Your task to perform on an android device: Add "panasonic triple a" to the cart on costco.com, then select checkout. Image 0: 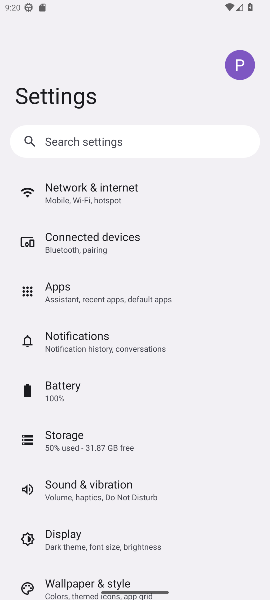
Step 0: press home button
Your task to perform on an android device: Add "panasonic triple a" to the cart on costco.com, then select checkout. Image 1: 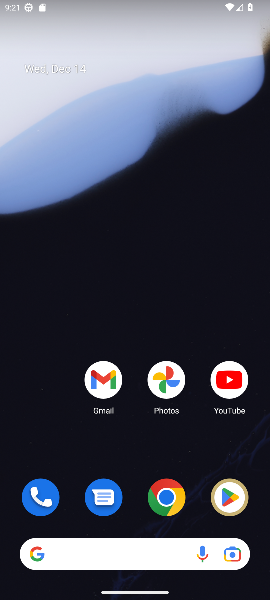
Step 1: click (169, 501)
Your task to perform on an android device: Add "panasonic triple a" to the cart on costco.com, then select checkout. Image 2: 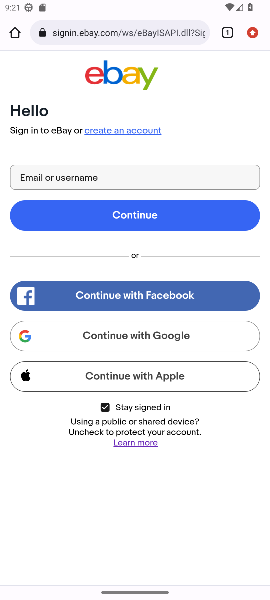
Step 2: click (106, 28)
Your task to perform on an android device: Add "panasonic triple a" to the cart on costco.com, then select checkout. Image 3: 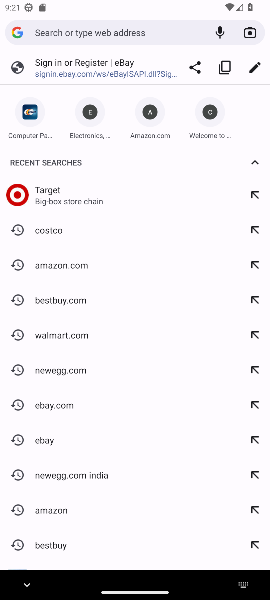
Step 3: type "costco.com"
Your task to perform on an android device: Add "panasonic triple a" to the cart on costco.com, then select checkout. Image 4: 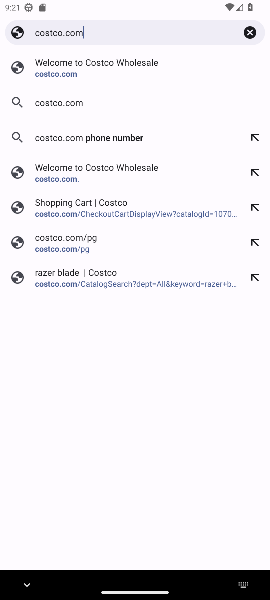
Step 4: click (106, 69)
Your task to perform on an android device: Add "panasonic triple a" to the cart on costco.com, then select checkout. Image 5: 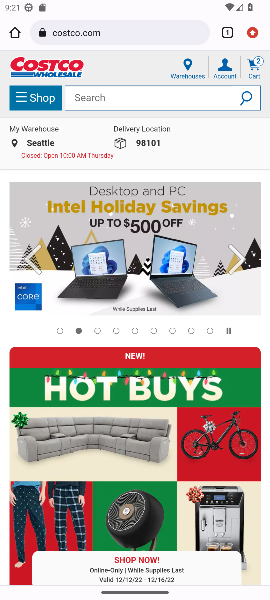
Step 5: click (111, 90)
Your task to perform on an android device: Add "panasonic triple a" to the cart on costco.com, then select checkout. Image 6: 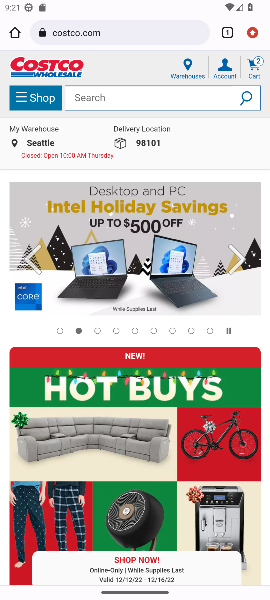
Step 6: click (111, 90)
Your task to perform on an android device: Add "panasonic triple a" to the cart on costco.com, then select checkout. Image 7: 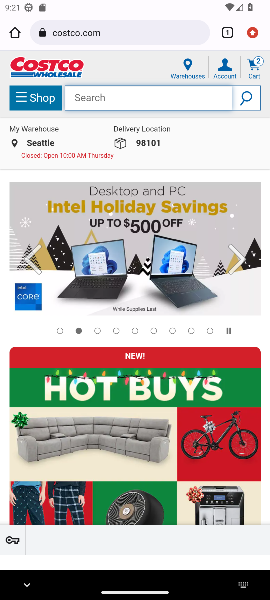
Step 7: click (108, 97)
Your task to perform on an android device: Add "panasonic triple a" to the cart on costco.com, then select checkout. Image 8: 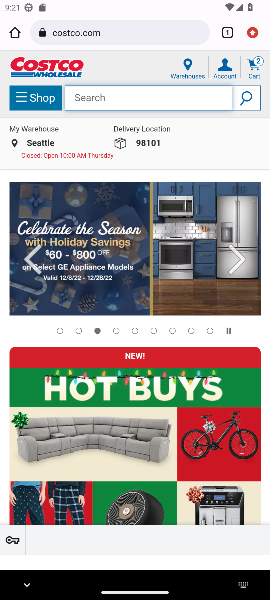
Step 8: click (125, 100)
Your task to perform on an android device: Add "panasonic triple a" to the cart on costco.com, then select checkout. Image 9: 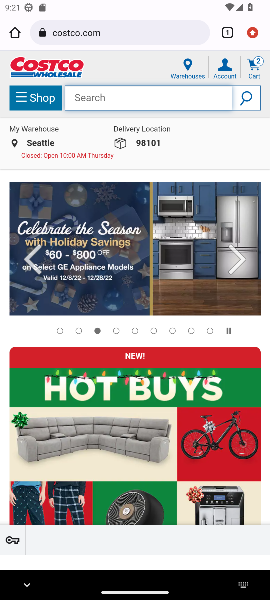
Step 9: click (125, 100)
Your task to perform on an android device: Add "panasonic triple a" to the cart on costco.com, then select checkout. Image 10: 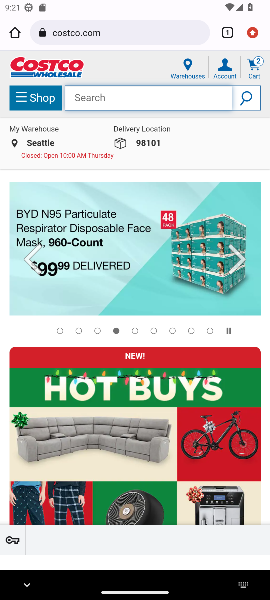
Step 10: type "panasonic triple a"
Your task to perform on an android device: Add "panasonic triple a" to the cart on costco.com, then select checkout. Image 11: 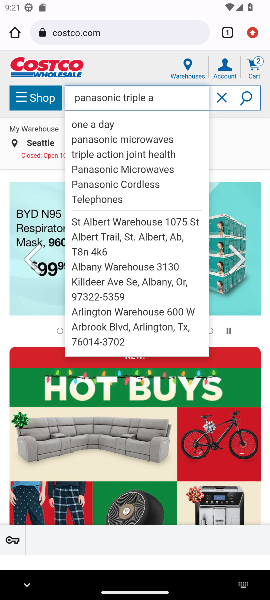
Step 11: press enter
Your task to perform on an android device: Add "panasonic triple a" to the cart on costco.com, then select checkout. Image 12: 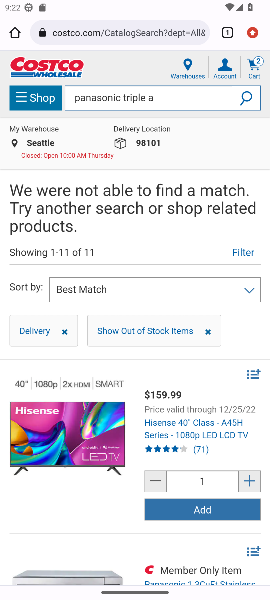
Step 12: task complete